Your task to perform on an android device: Search for dell xps on bestbuy, select the first entry, add it to the cart, then select checkout. Image 0: 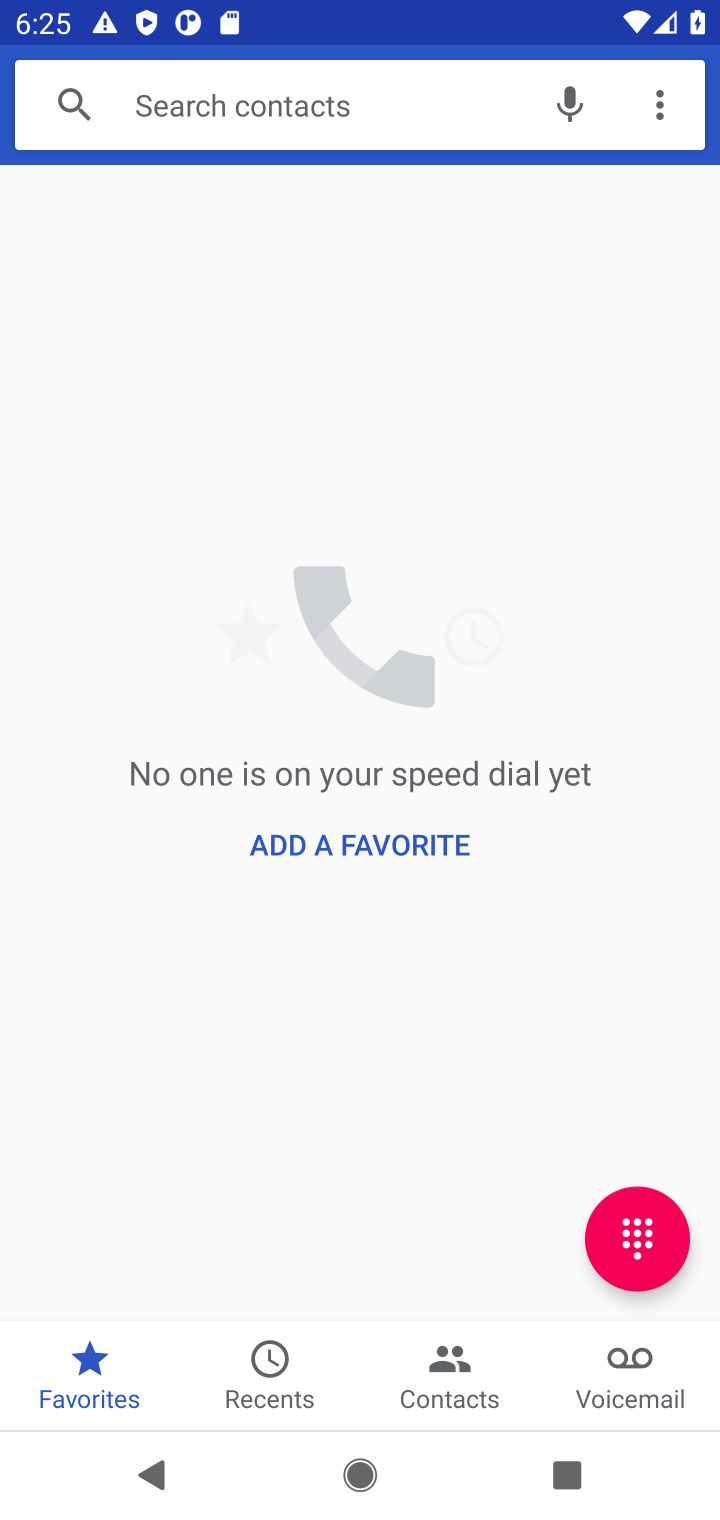
Step 0: press home button
Your task to perform on an android device: Search for dell xps on bestbuy, select the first entry, add it to the cart, then select checkout. Image 1: 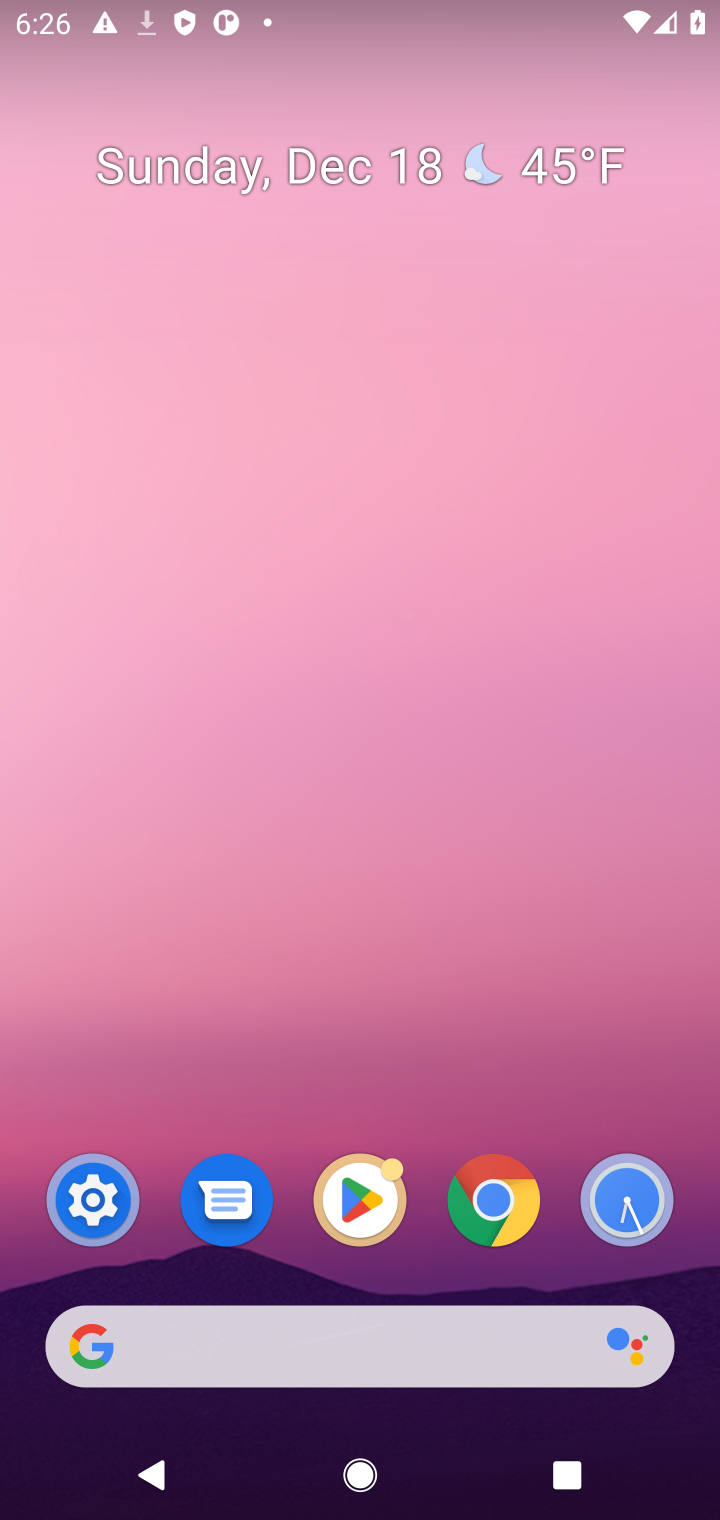
Step 1: click (505, 1211)
Your task to perform on an android device: Search for dell xps on bestbuy, select the first entry, add it to the cart, then select checkout. Image 2: 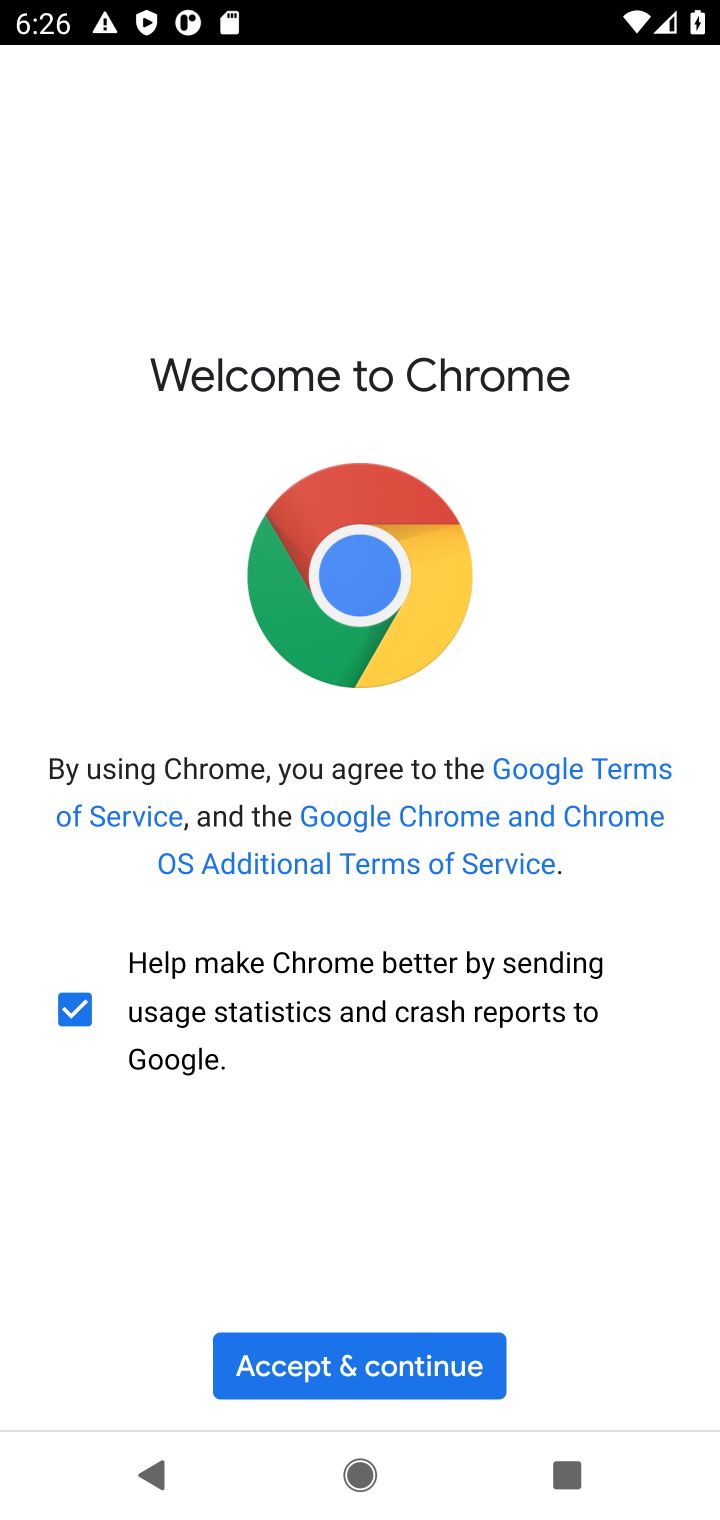
Step 2: click (392, 1374)
Your task to perform on an android device: Search for dell xps on bestbuy, select the first entry, add it to the cart, then select checkout. Image 3: 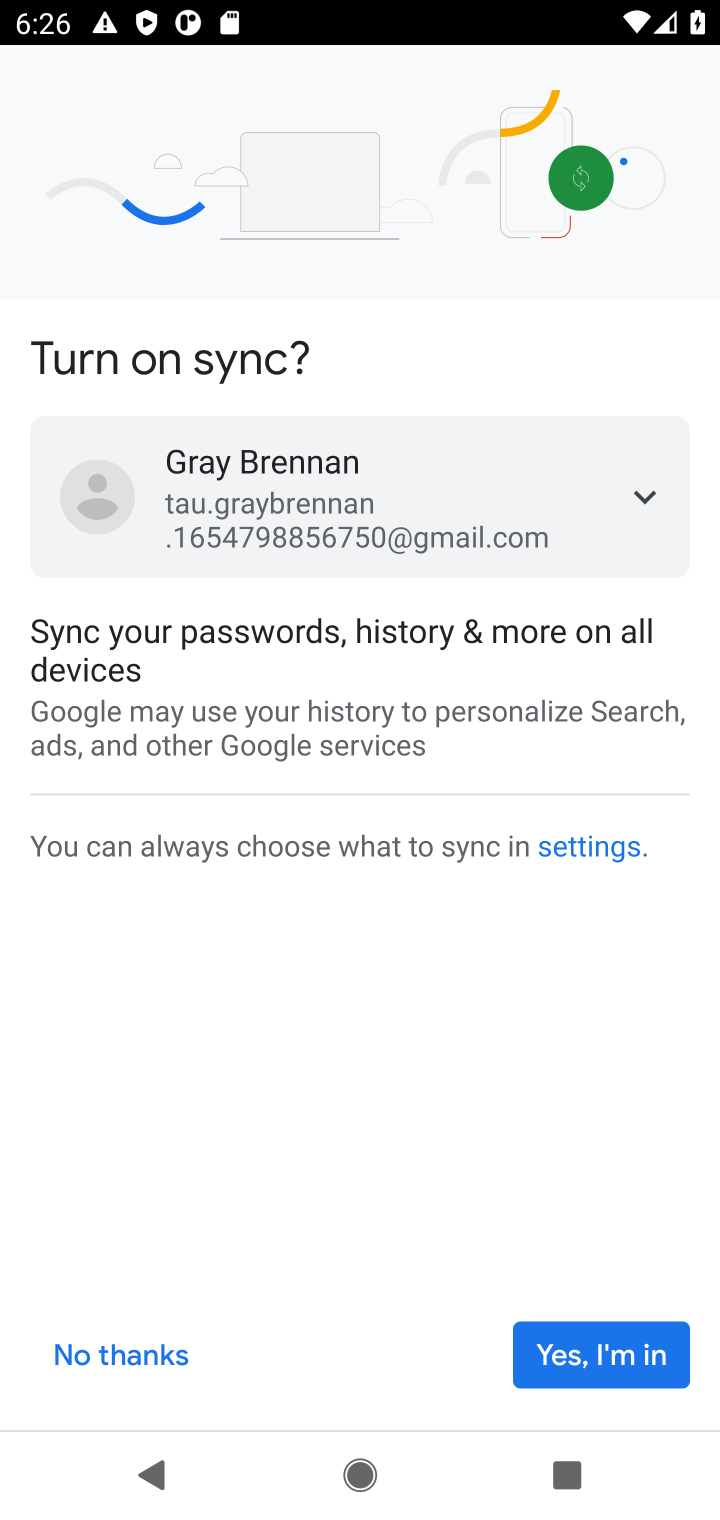
Step 3: click (144, 1355)
Your task to perform on an android device: Search for dell xps on bestbuy, select the first entry, add it to the cart, then select checkout. Image 4: 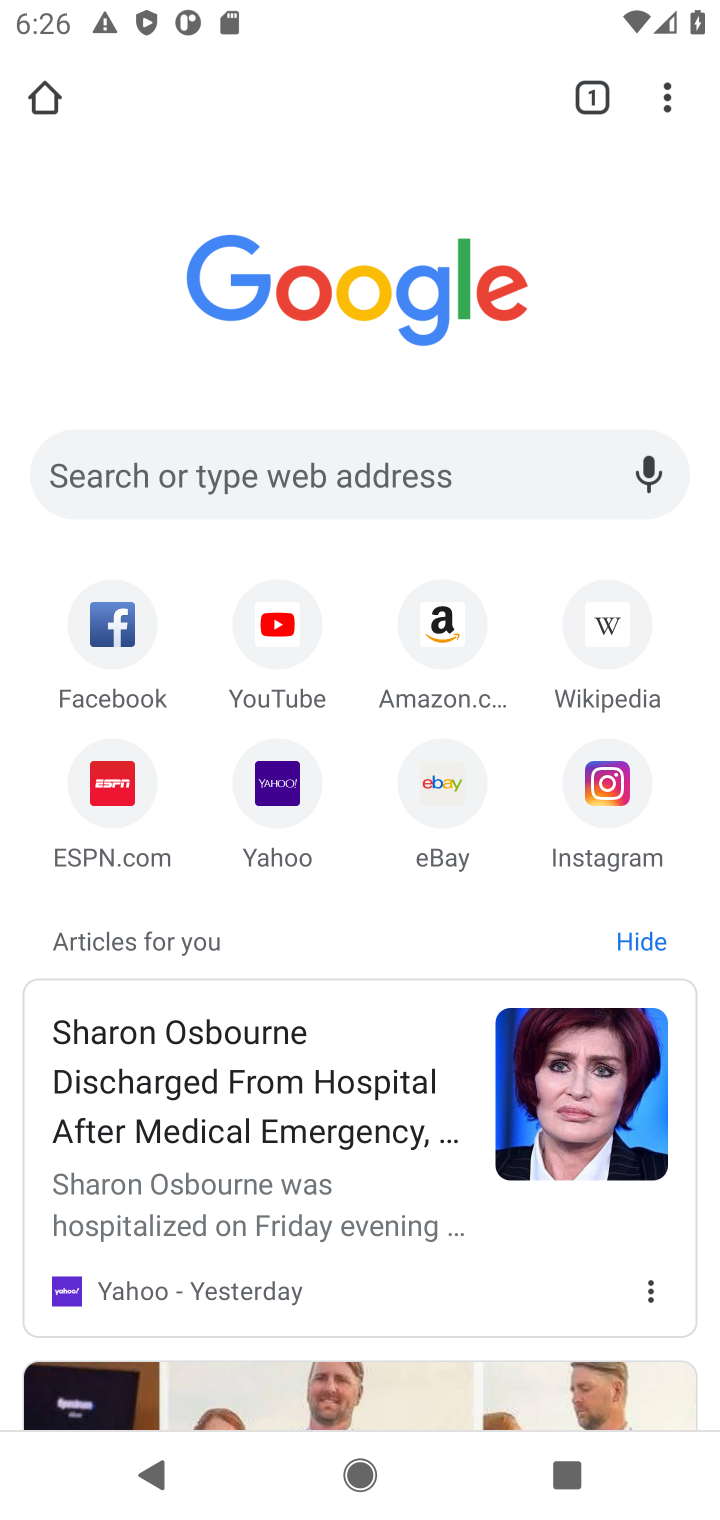
Step 4: click (225, 469)
Your task to perform on an android device: Search for dell xps on bestbuy, select the first entry, add it to the cart, then select checkout. Image 5: 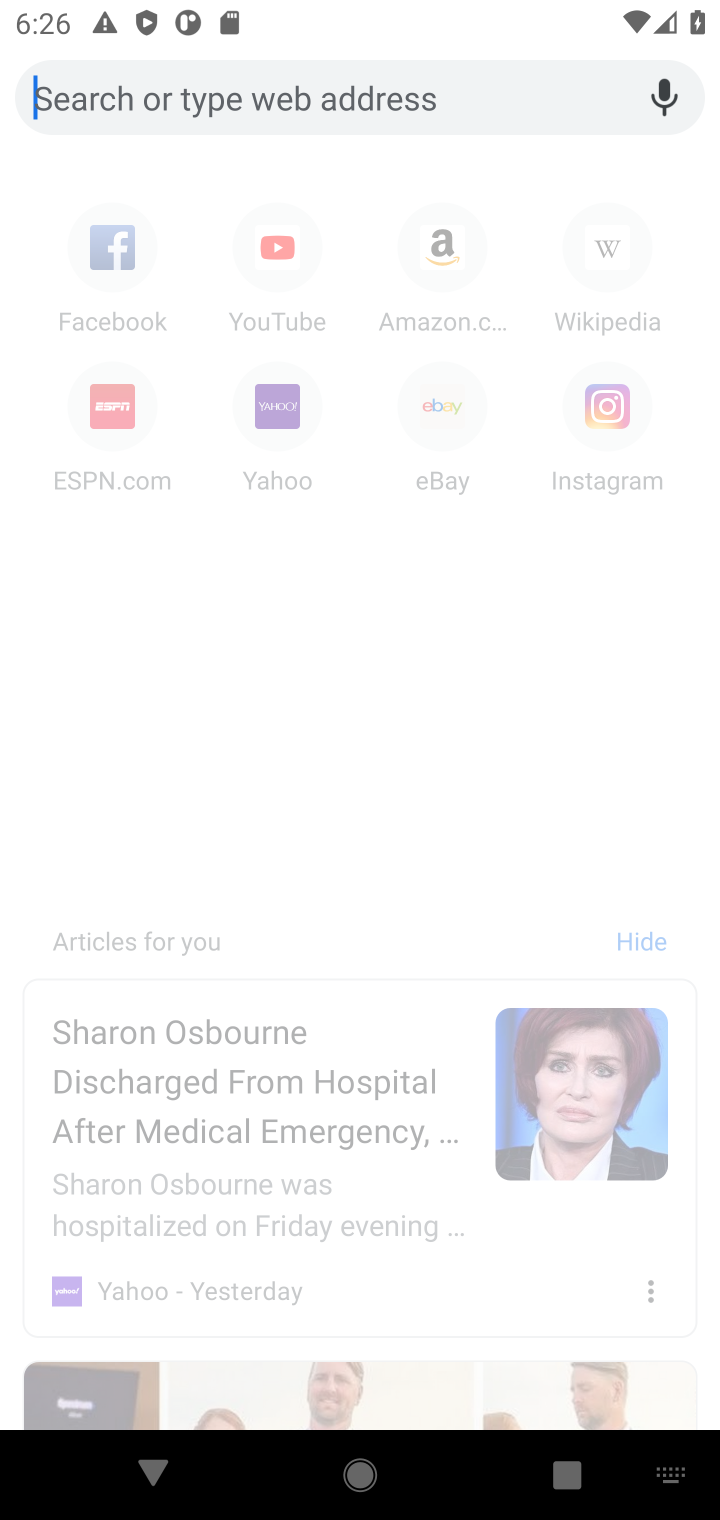
Step 5: type "bestbuy.com"
Your task to perform on an android device: Search for dell xps on bestbuy, select the first entry, add it to the cart, then select checkout. Image 6: 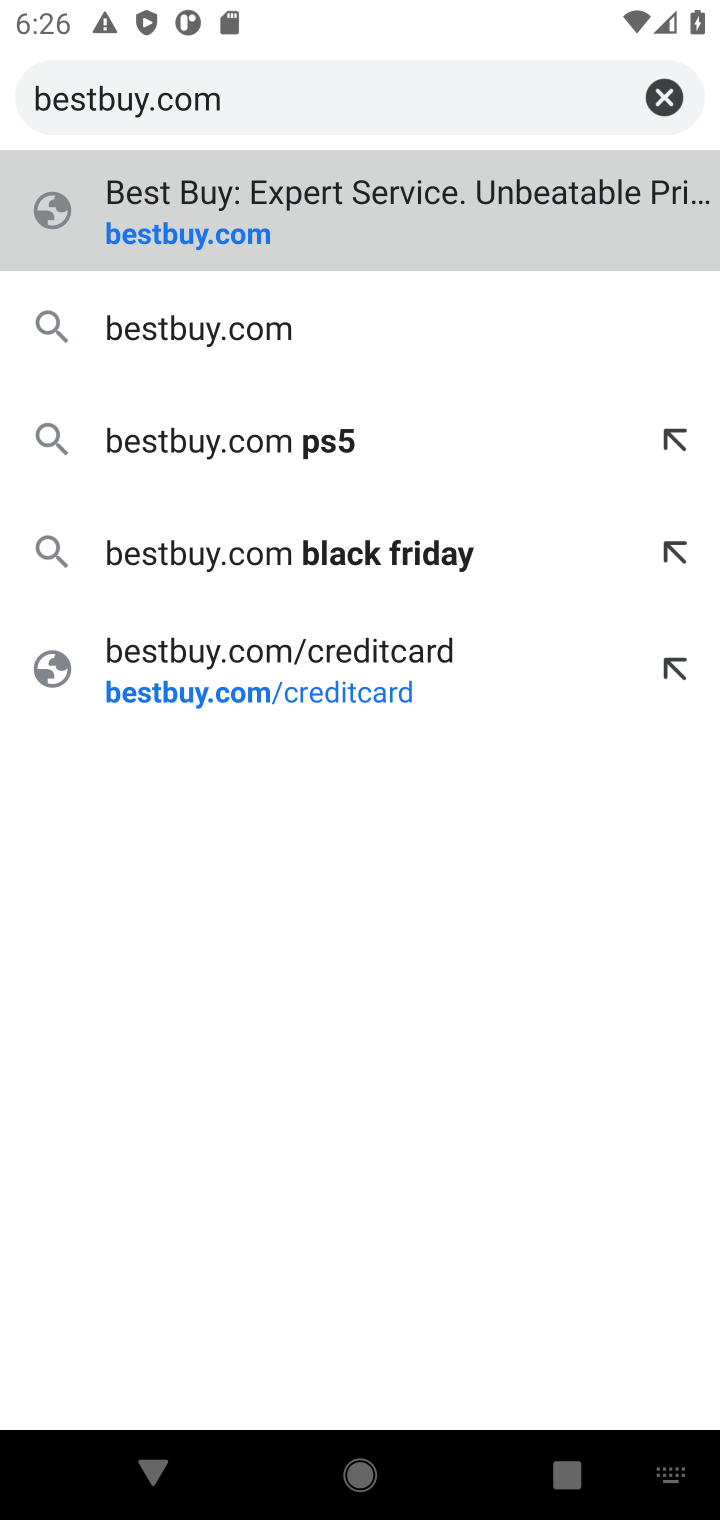
Step 6: click (156, 239)
Your task to perform on an android device: Search for dell xps on bestbuy, select the first entry, add it to the cart, then select checkout. Image 7: 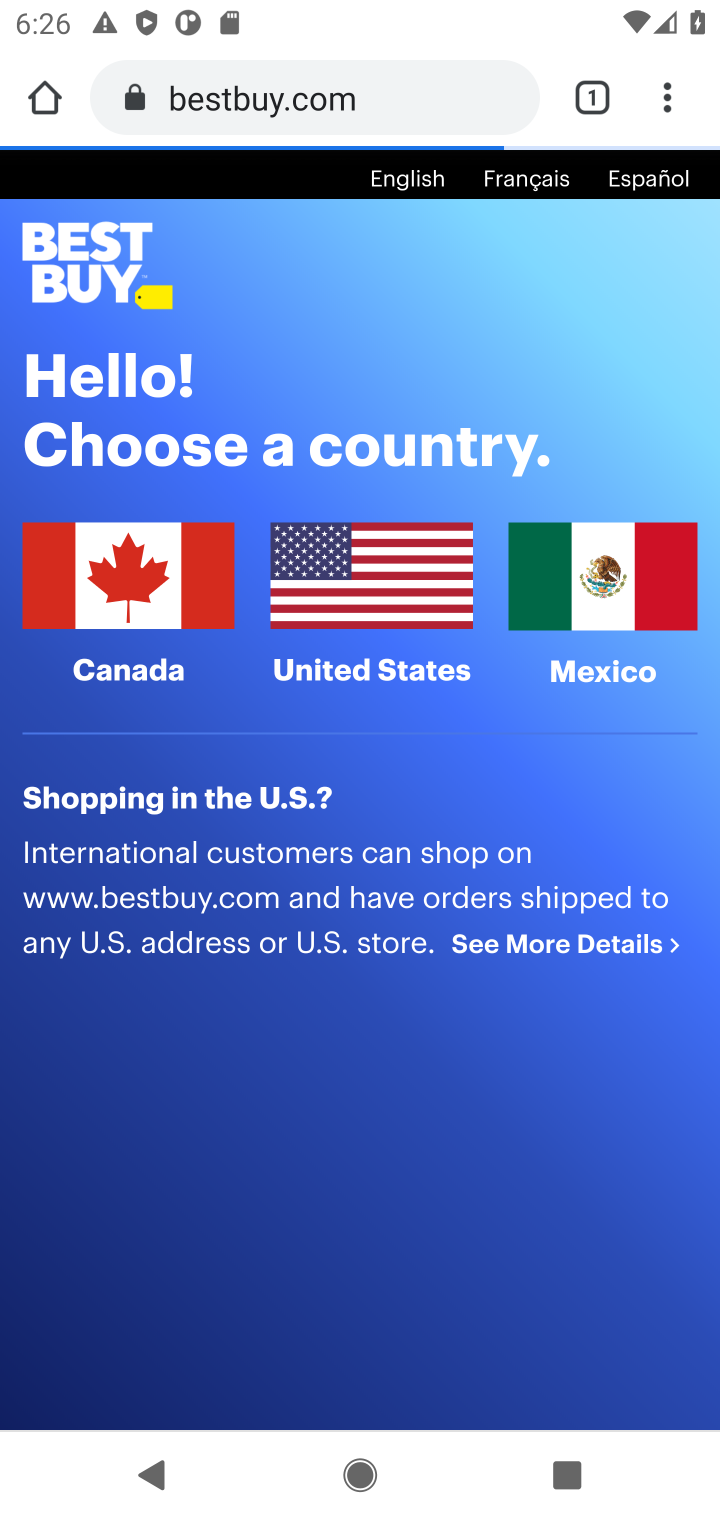
Step 7: click (392, 570)
Your task to perform on an android device: Search for dell xps on bestbuy, select the first entry, add it to the cart, then select checkout. Image 8: 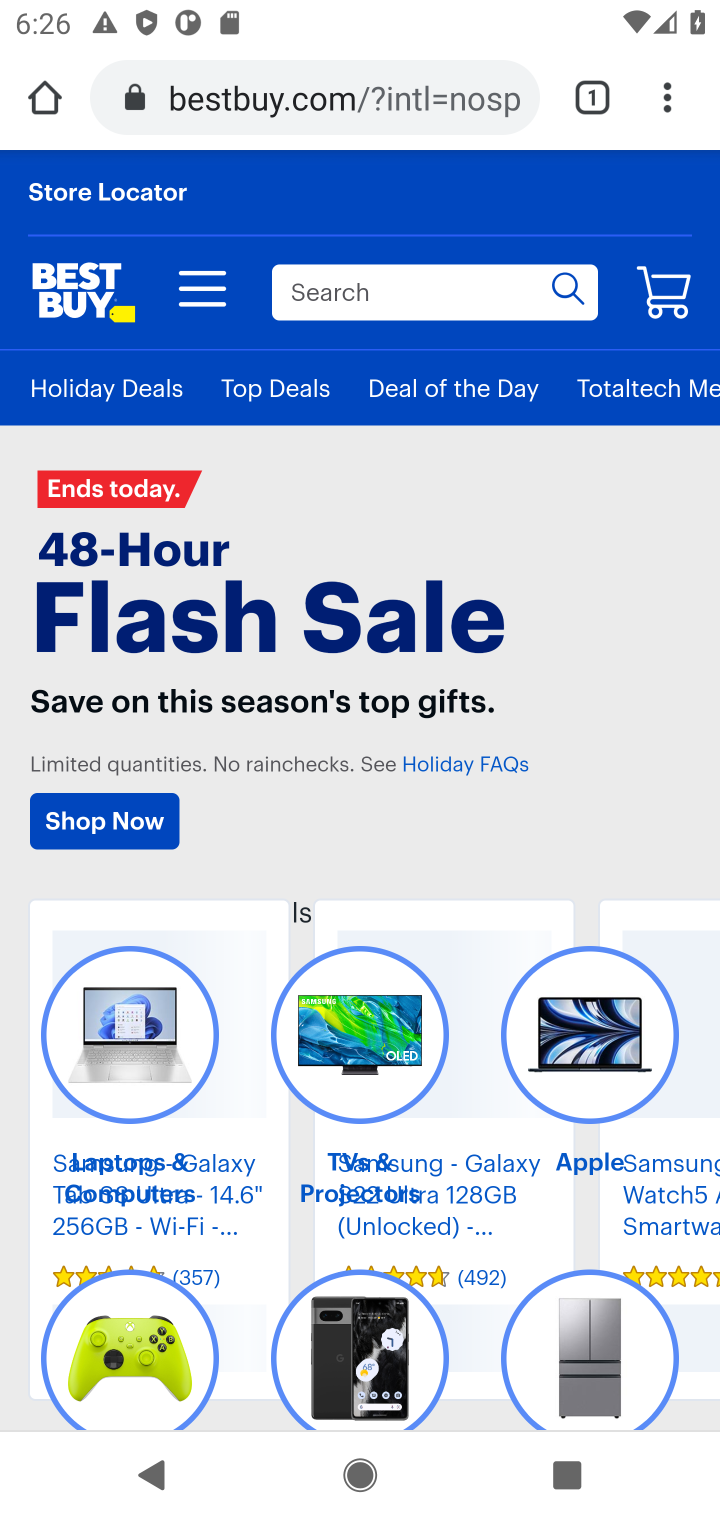
Step 8: click (345, 306)
Your task to perform on an android device: Search for dell xps on bestbuy, select the first entry, add it to the cart, then select checkout. Image 9: 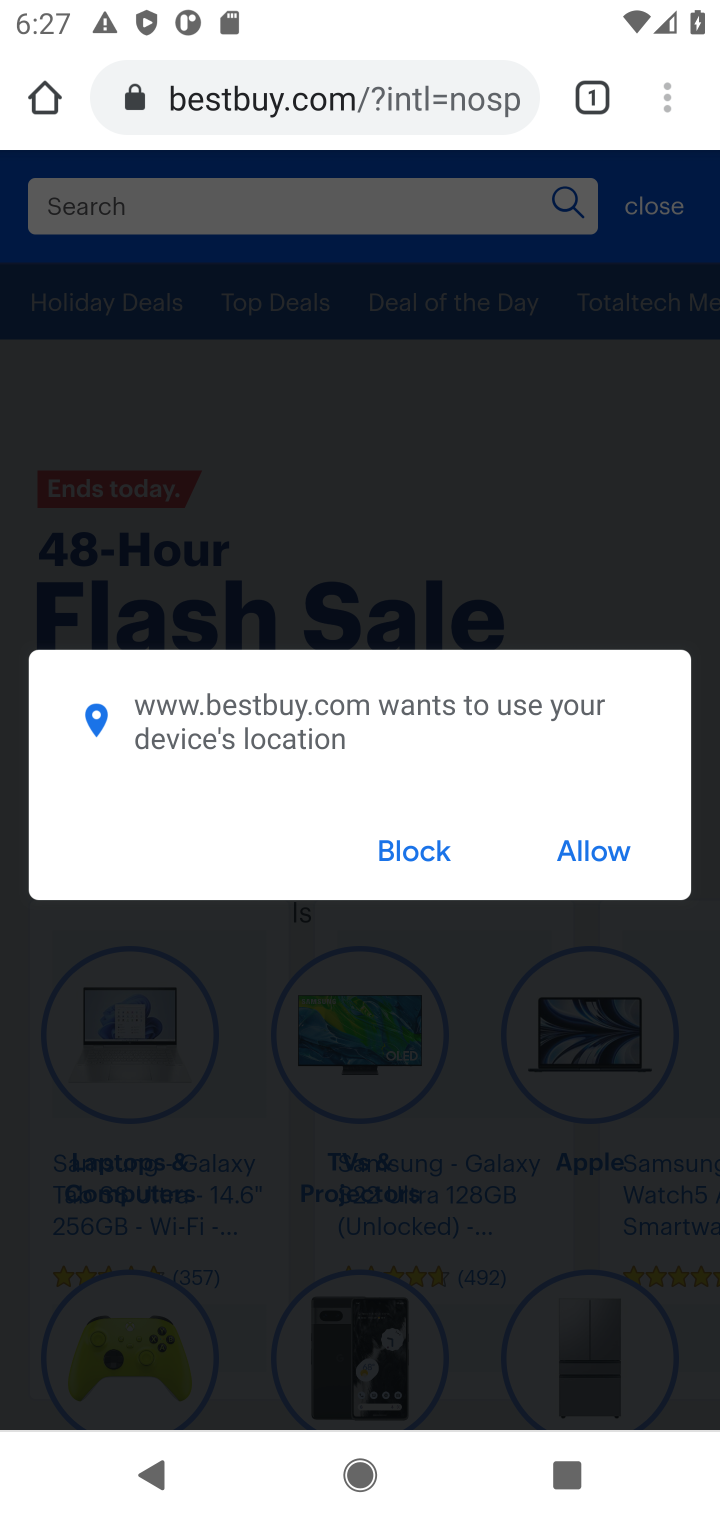
Step 9: type "dell xps"
Your task to perform on an android device: Search for dell xps on bestbuy, select the first entry, add it to the cart, then select checkout. Image 10: 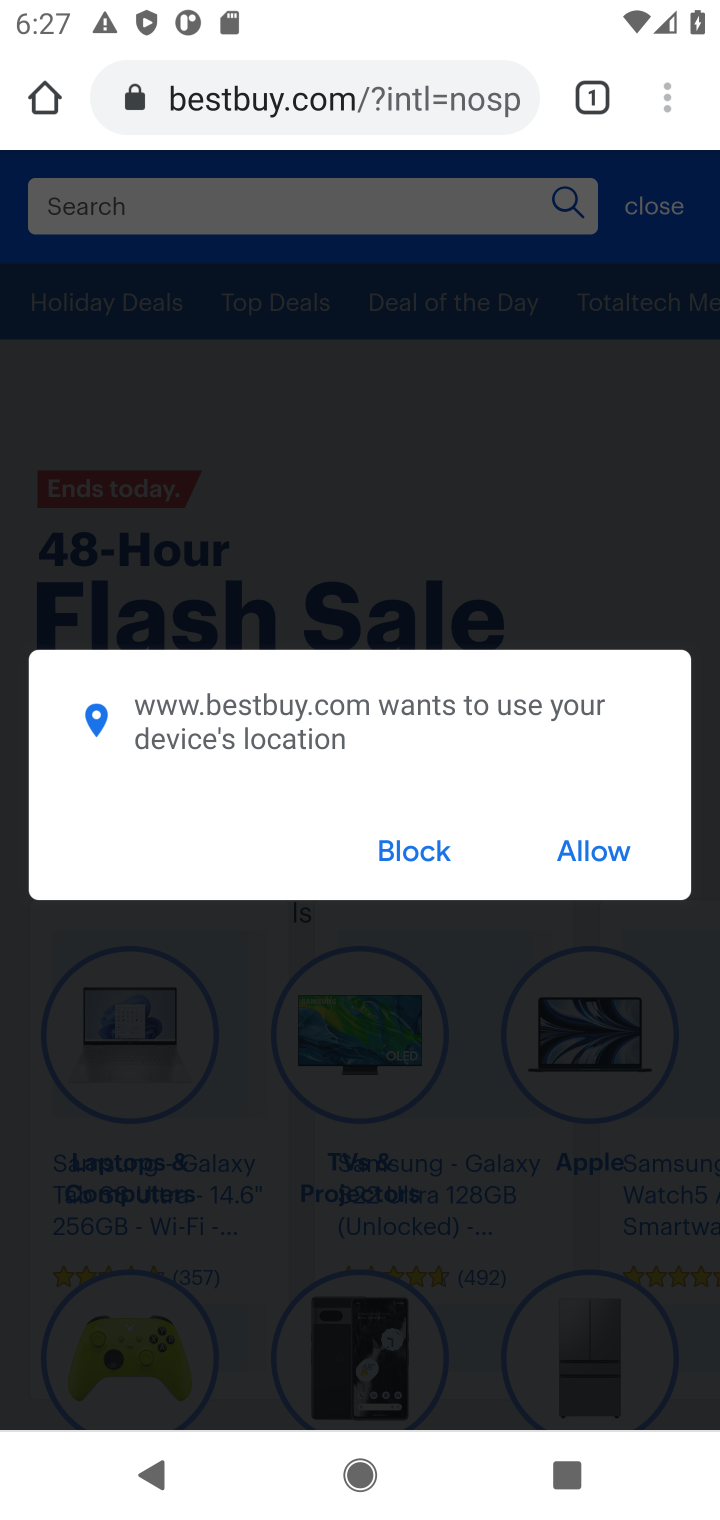
Step 10: click (437, 851)
Your task to perform on an android device: Search for dell xps on bestbuy, select the first entry, add it to the cart, then select checkout. Image 11: 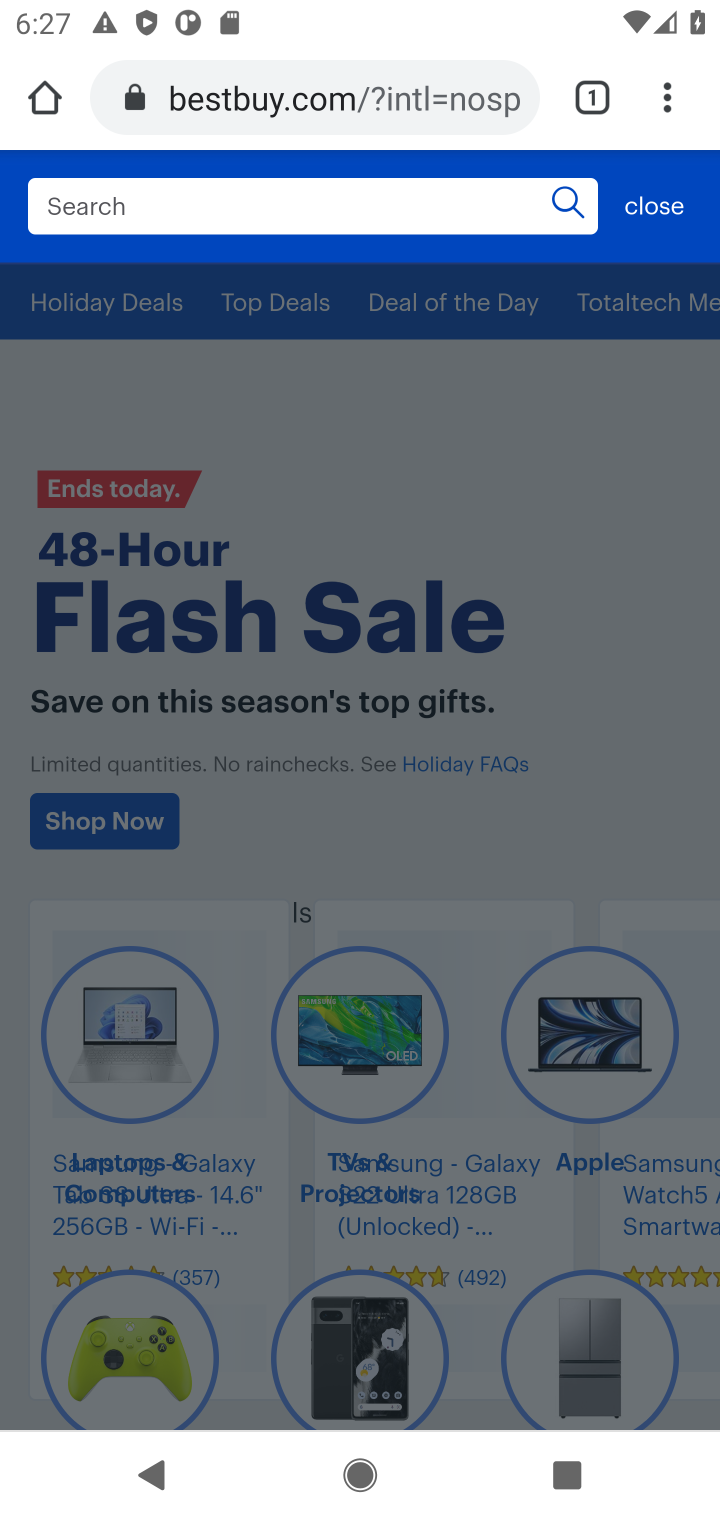
Step 11: click (215, 227)
Your task to perform on an android device: Search for dell xps on bestbuy, select the first entry, add it to the cart, then select checkout. Image 12: 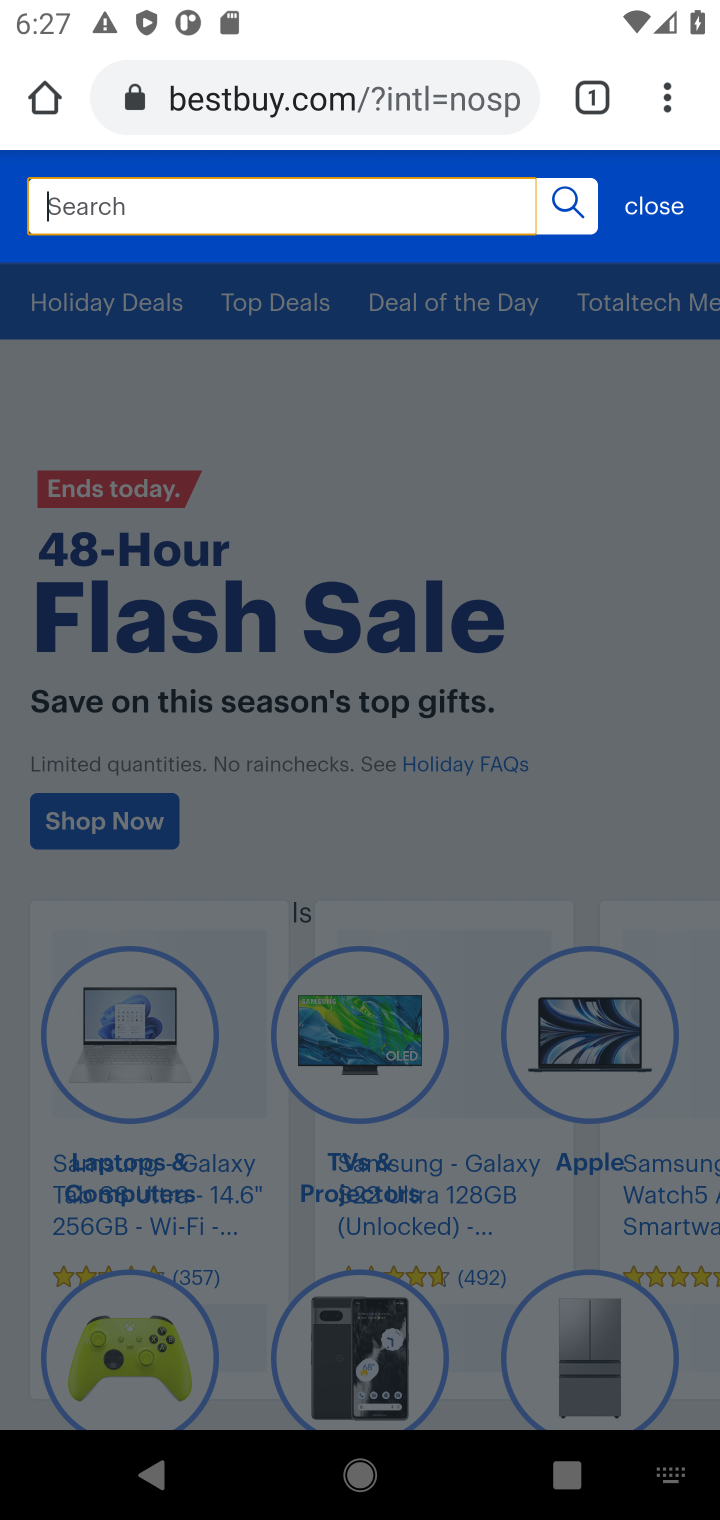
Step 12: type "dell xps"
Your task to perform on an android device: Search for dell xps on bestbuy, select the first entry, add it to the cart, then select checkout. Image 13: 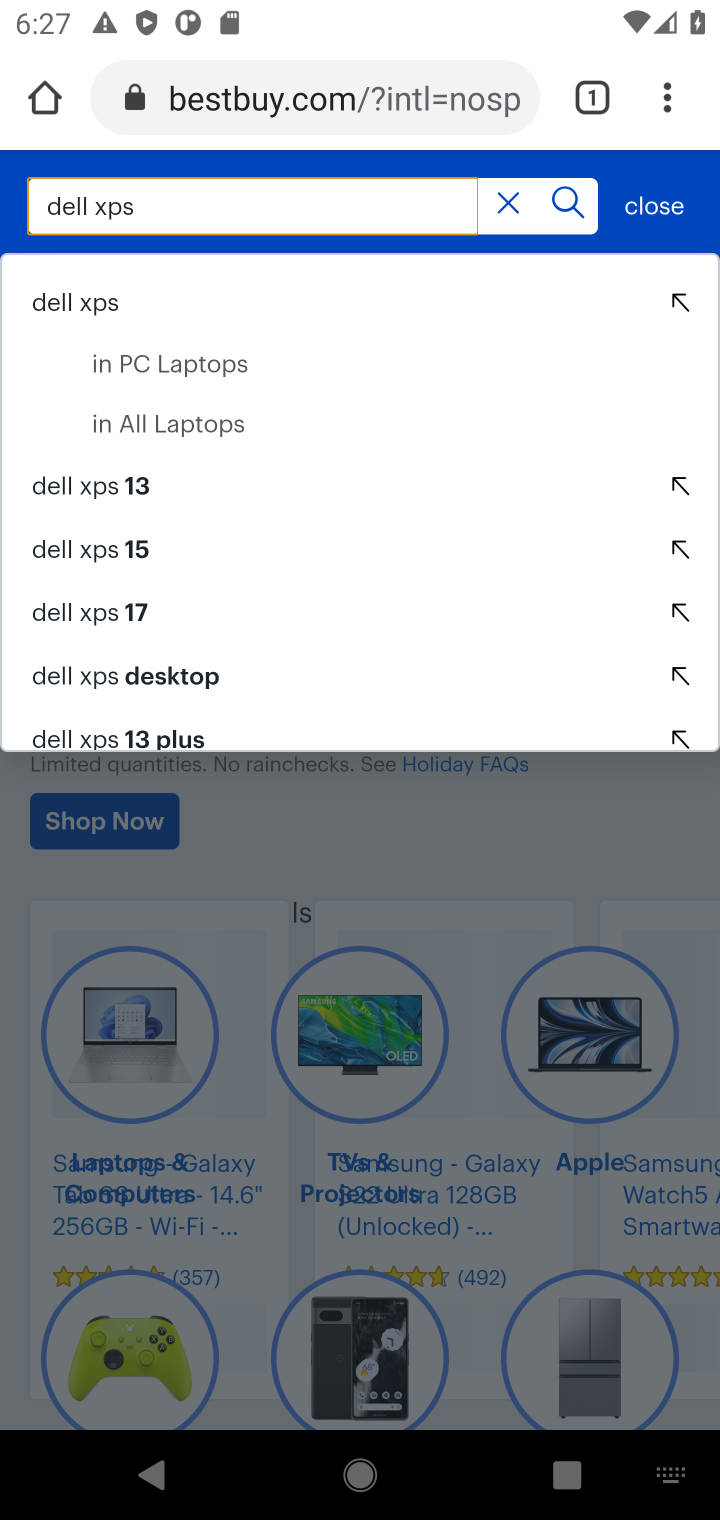
Step 13: click (89, 302)
Your task to perform on an android device: Search for dell xps on bestbuy, select the first entry, add it to the cart, then select checkout. Image 14: 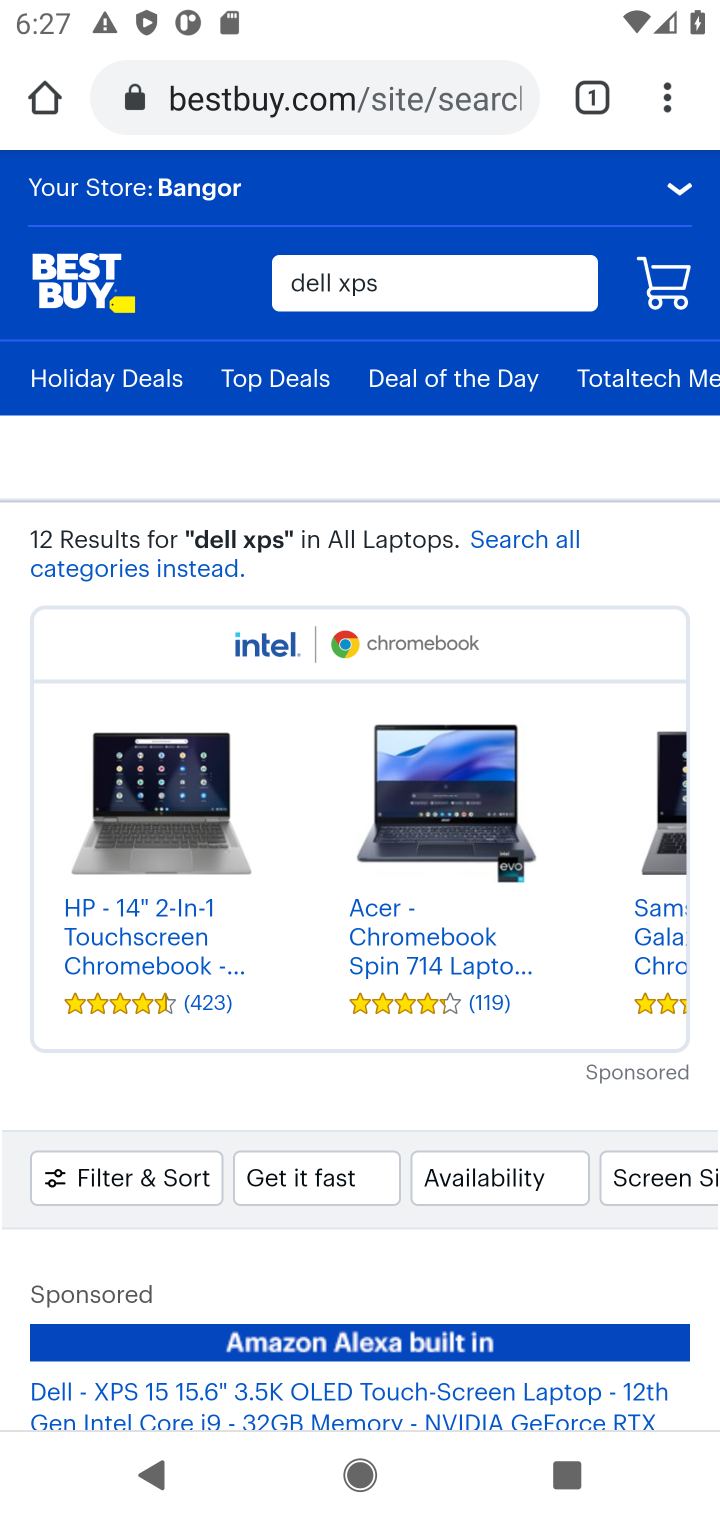
Step 14: drag from (327, 1234) to (361, 420)
Your task to perform on an android device: Search for dell xps on bestbuy, select the first entry, add it to the cart, then select checkout. Image 15: 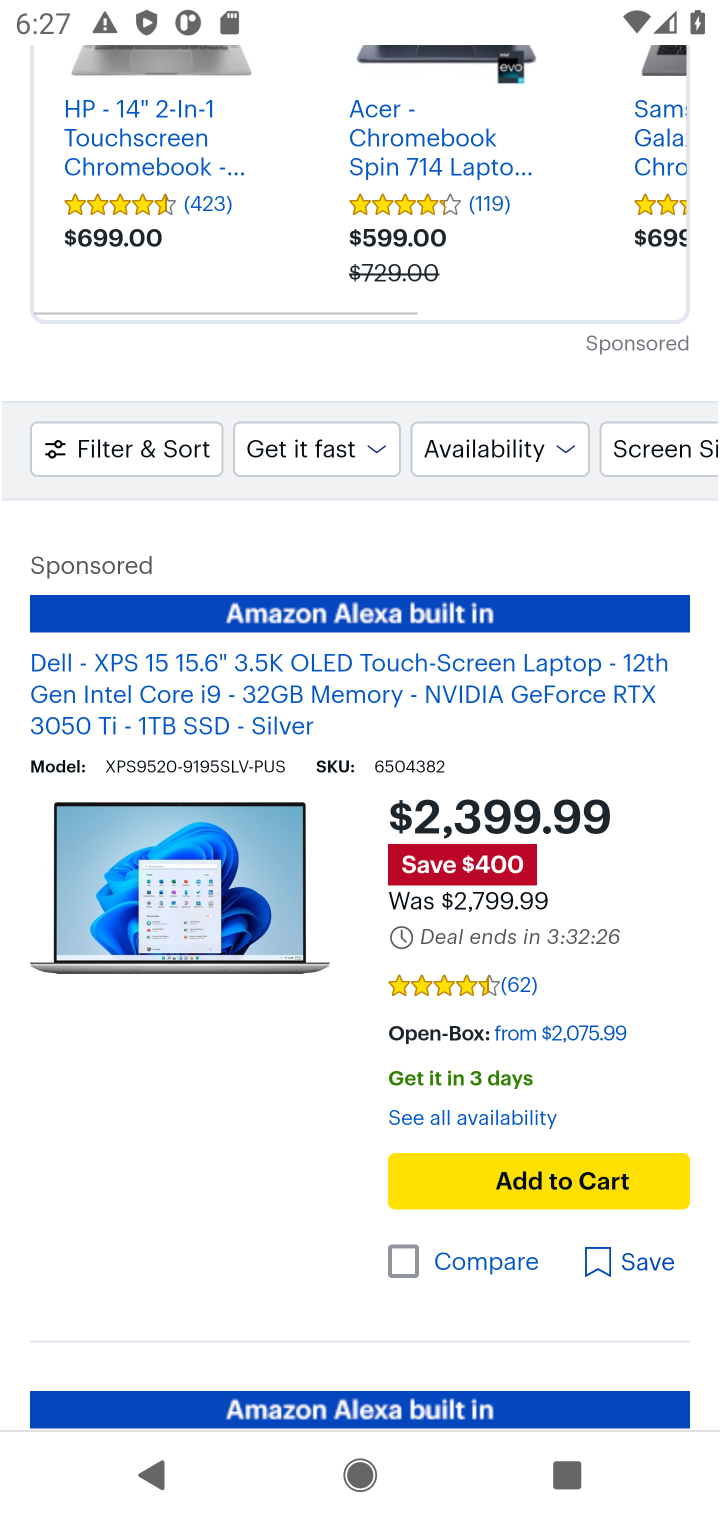
Step 15: click (273, 633)
Your task to perform on an android device: Search for dell xps on bestbuy, select the first entry, add it to the cart, then select checkout. Image 16: 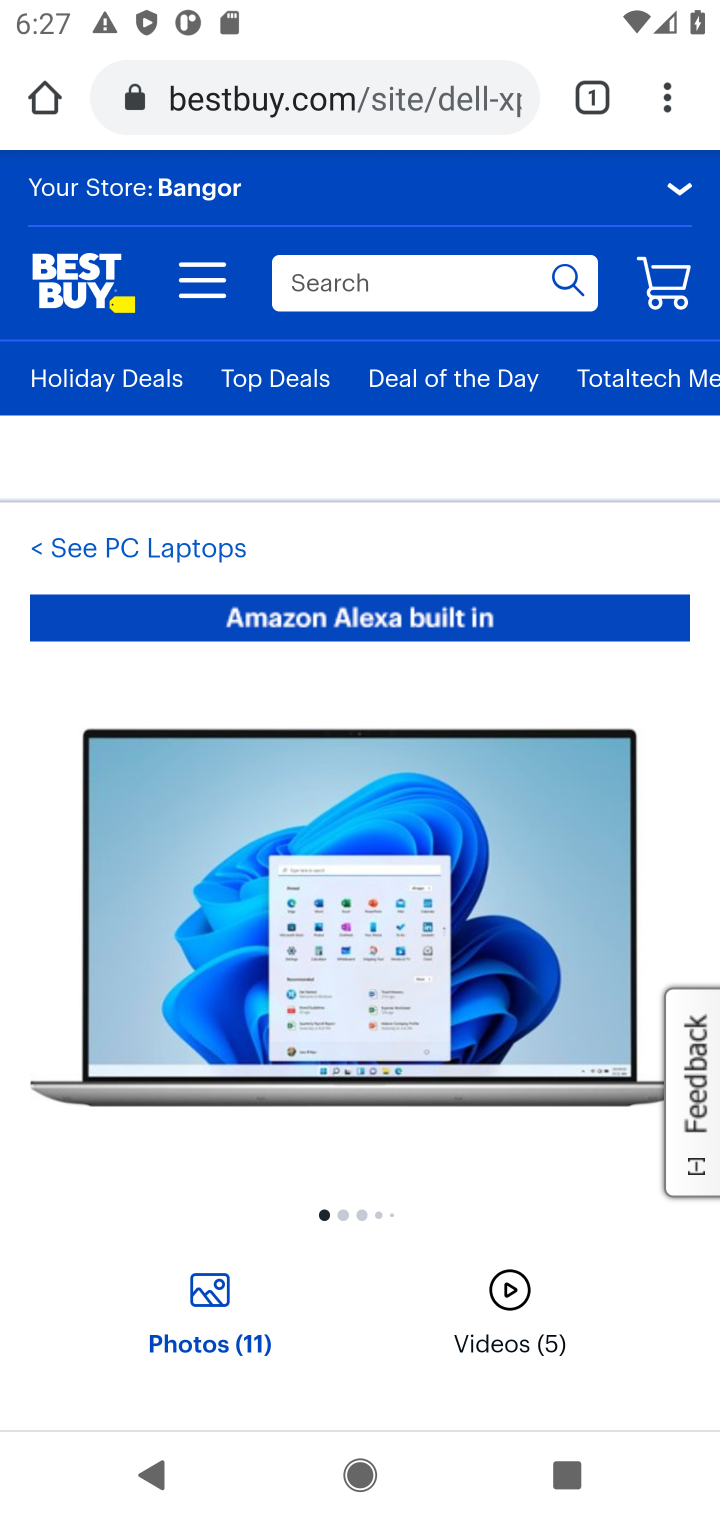
Step 16: drag from (301, 1045) to (277, 375)
Your task to perform on an android device: Search for dell xps on bestbuy, select the first entry, add it to the cart, then select checkout. Image 17: 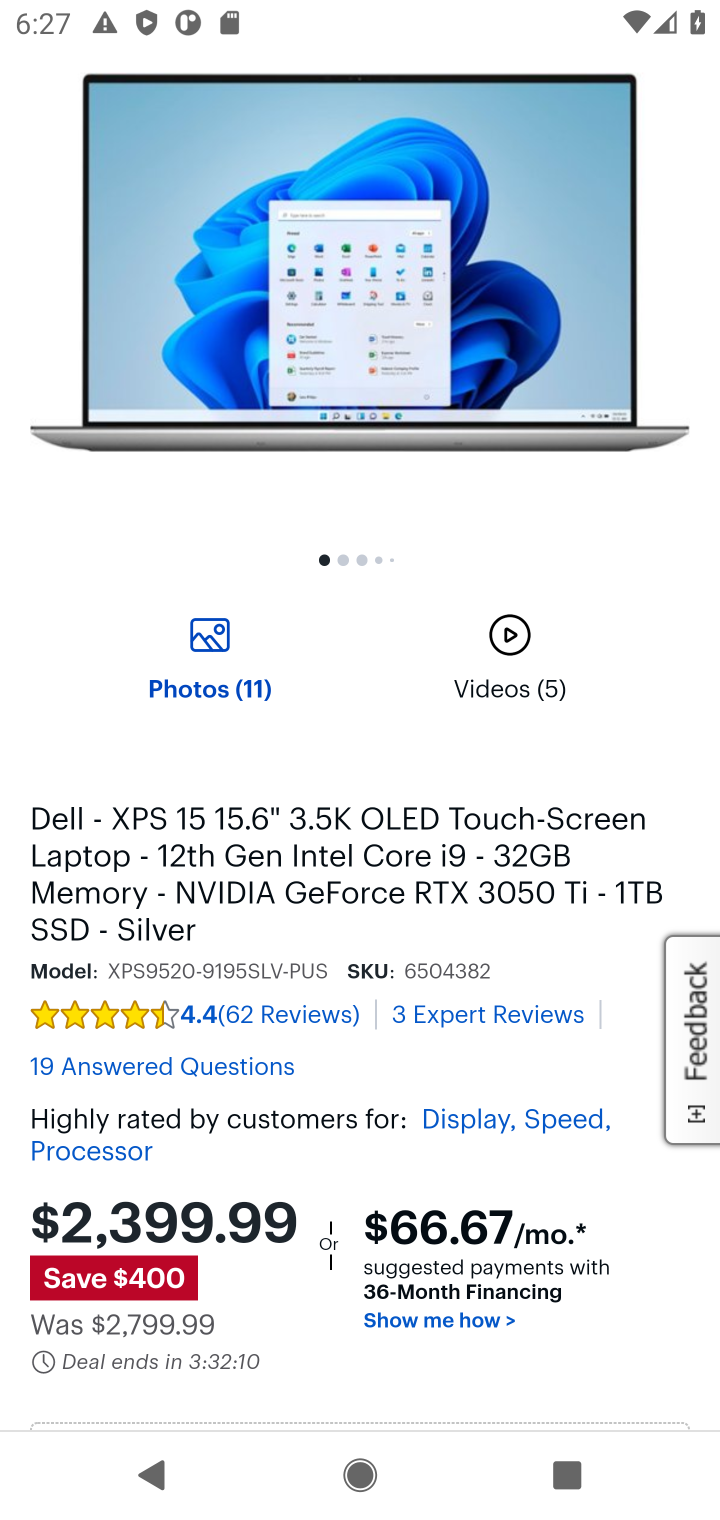
Step 17: drag from (354, 785) to (372, 296)
Your task to perform on an android device: Search for dell xps on bestbuy, select the first entry, add it to the cart, then select checkout. Image 18: 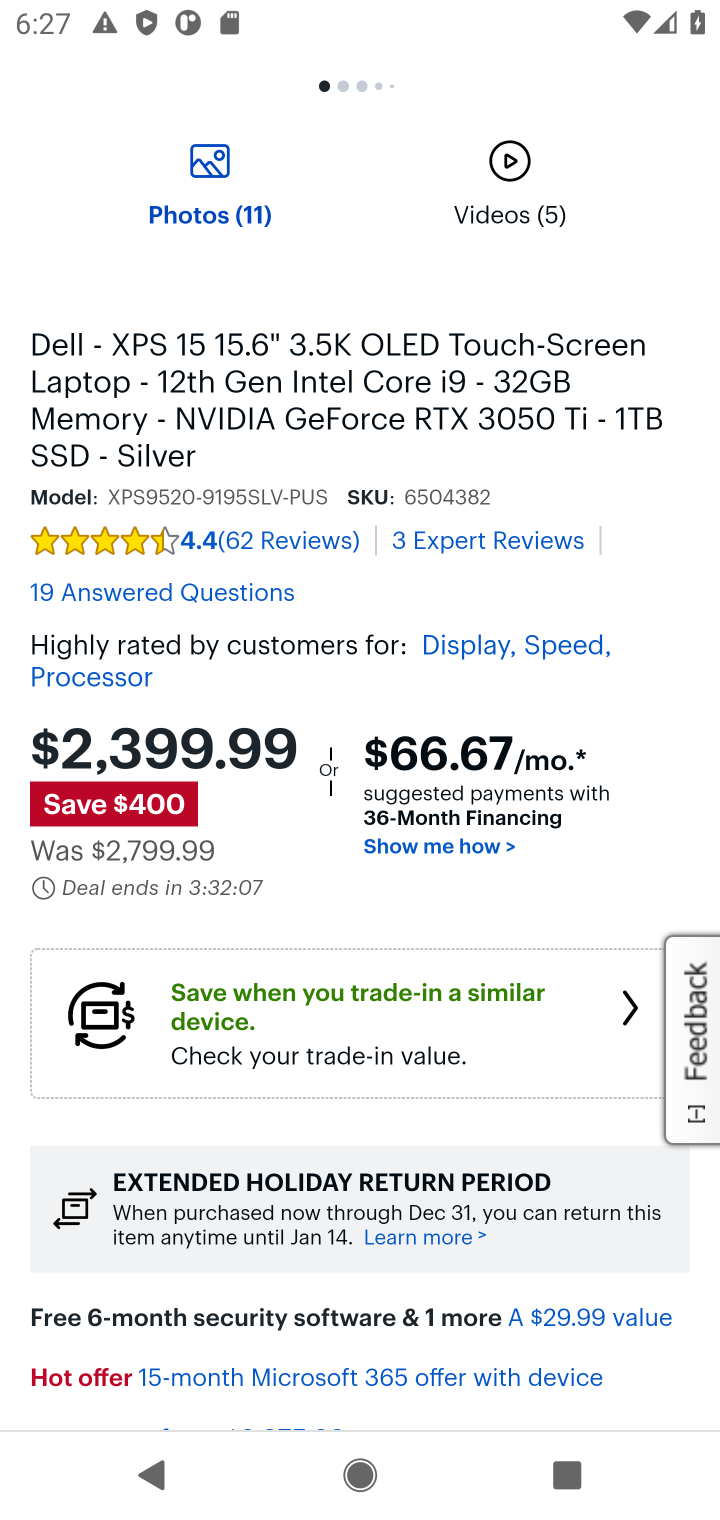
Step 18: drag from (291, 1149) to (315, 386)
Your task to perform on an android device: Search for dell xps on bestbuy, select the first entry, add it to the cart, then select checkout. Image 19: 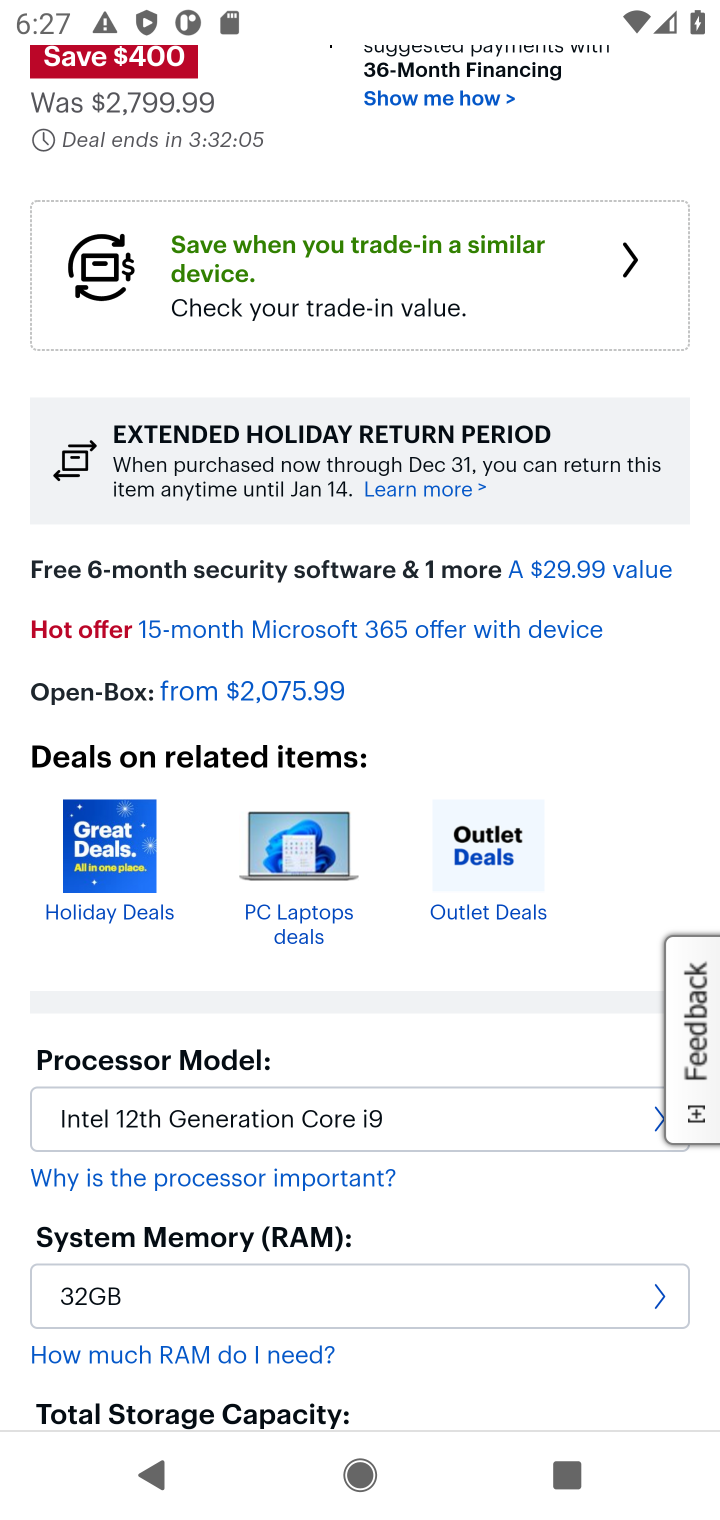
Step 19: drag from (294, 928) to (335, 368)
Your task to perform on an android device: Search for dell xps on bestbuy, select the first entry, add it to the cart, then select checkout. Image 20: 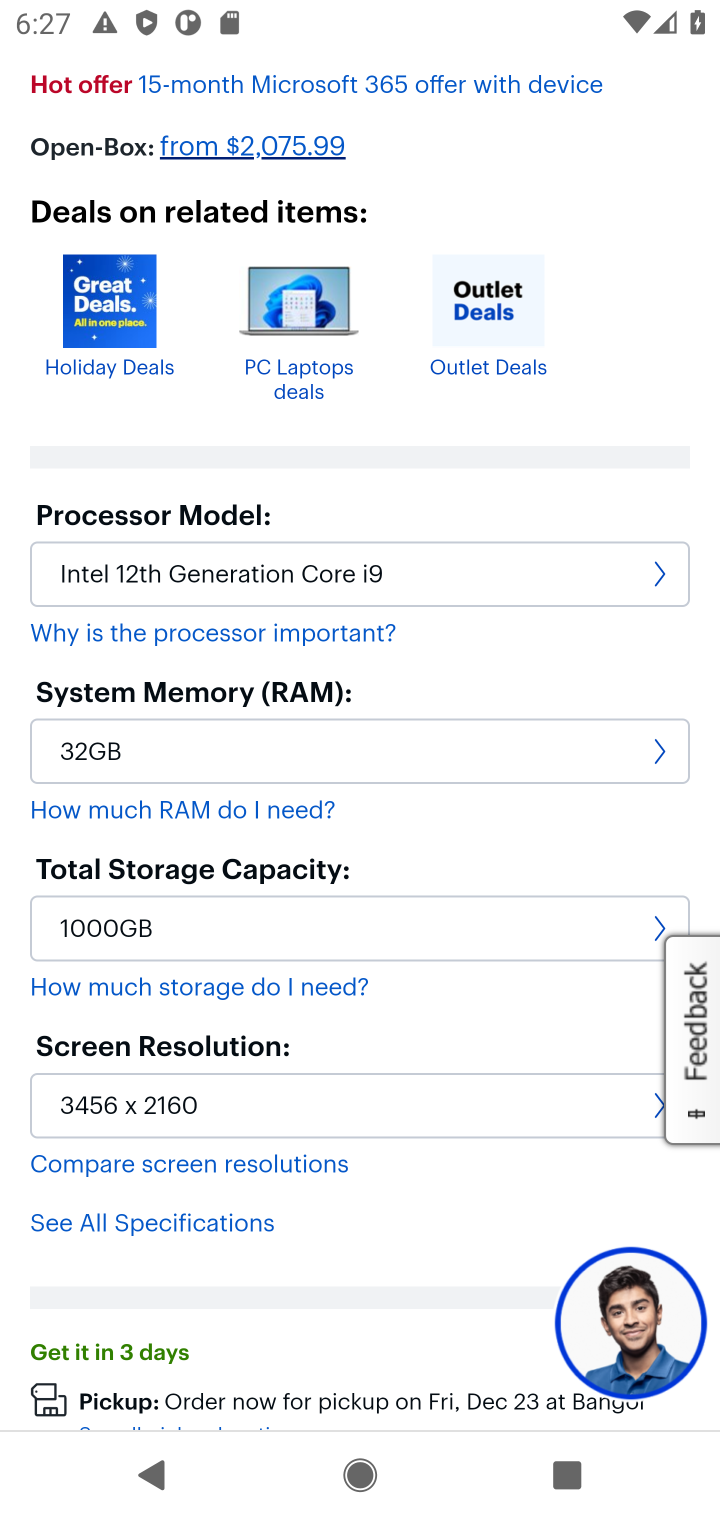
Step 20: drag from (299, 1154) to (333, 275)
Your task to perform on an android device: Search for dell xps on bestbuy, select the first entry, add it to the cart, then select checkout. Image 21: 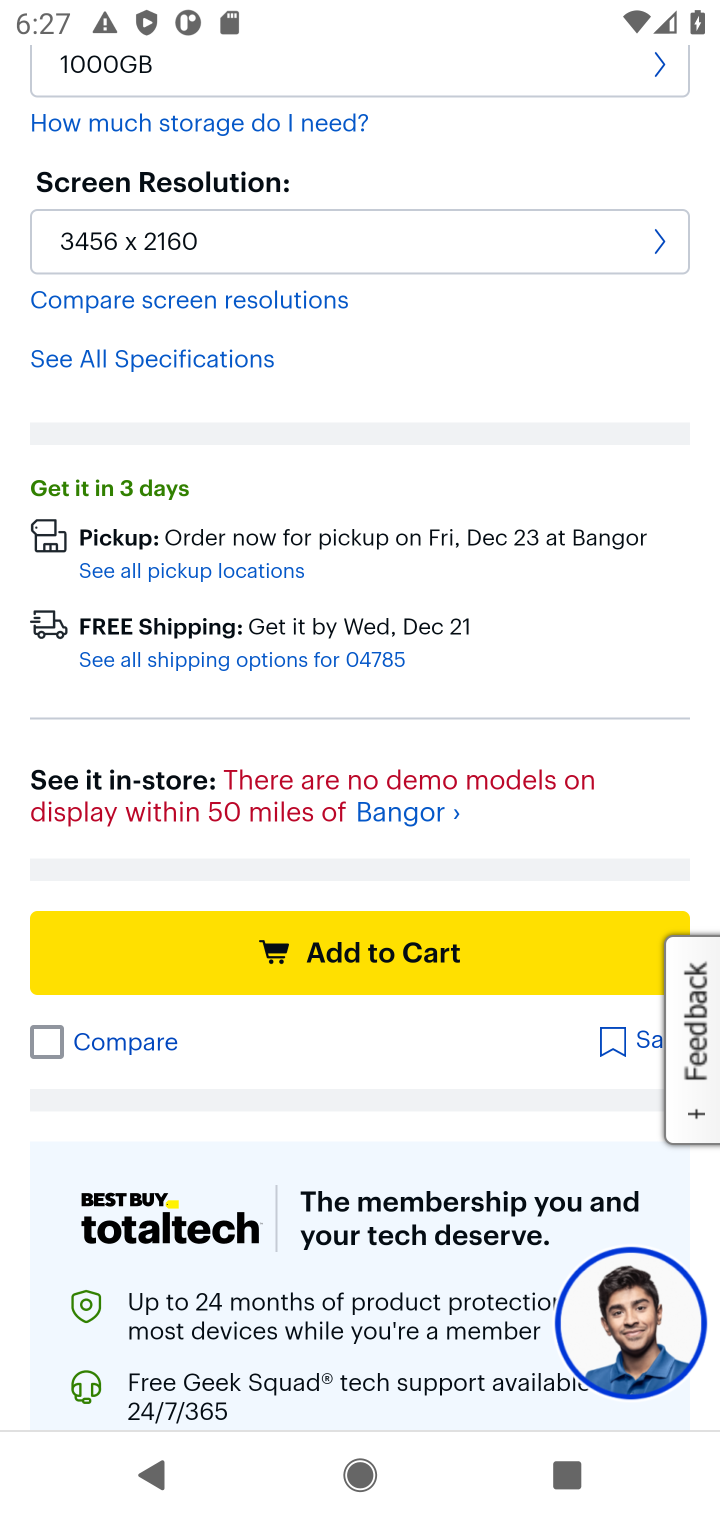
Step 21: click (303, 919)
Your task to perform on an android device: Search for dell xps on bestbuy, select the first entry, add it to the cart, then select checkout. Image 22: 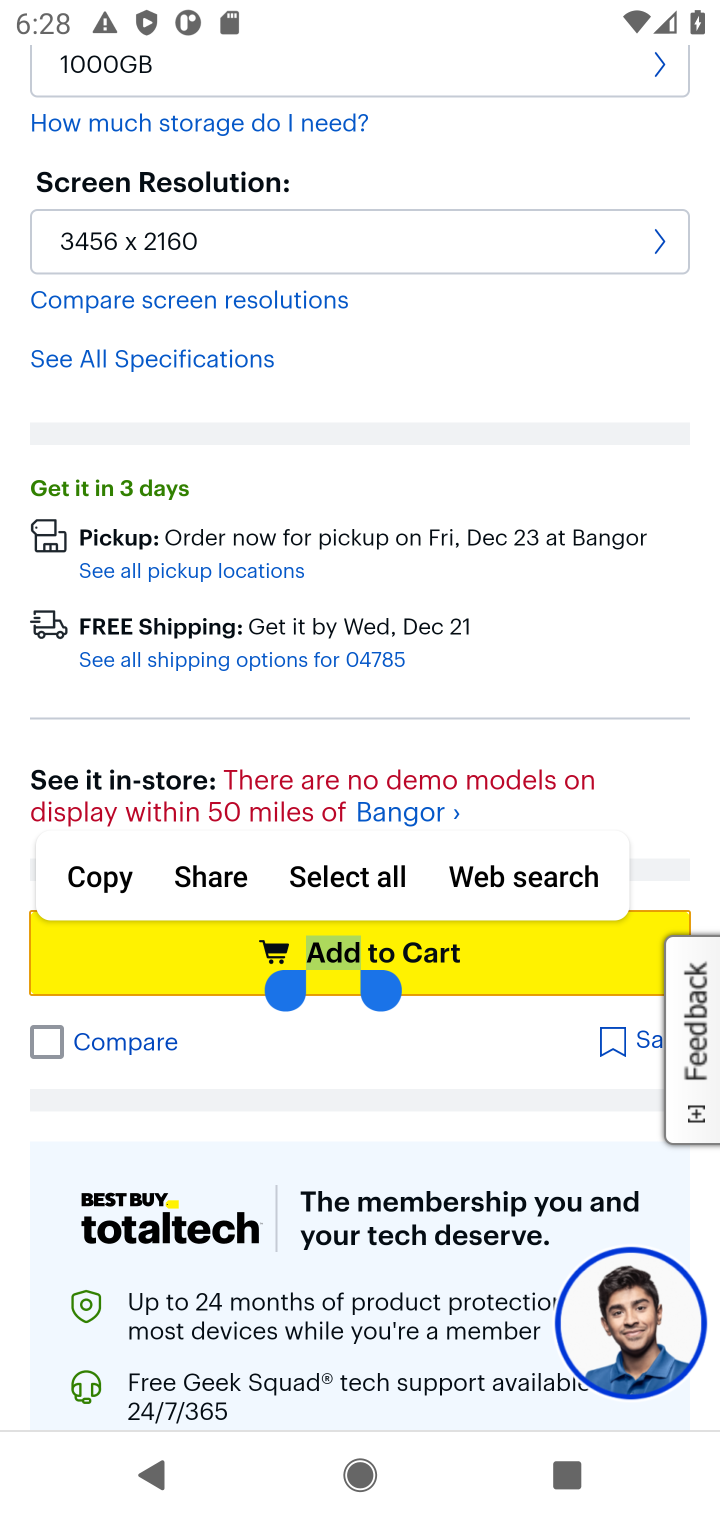
Step 22: click (411, 953)
Your task to perform on an android device: Search for dell xps on bestbuy, select the first entry, add it to the cart, then select checkout. Image 23: 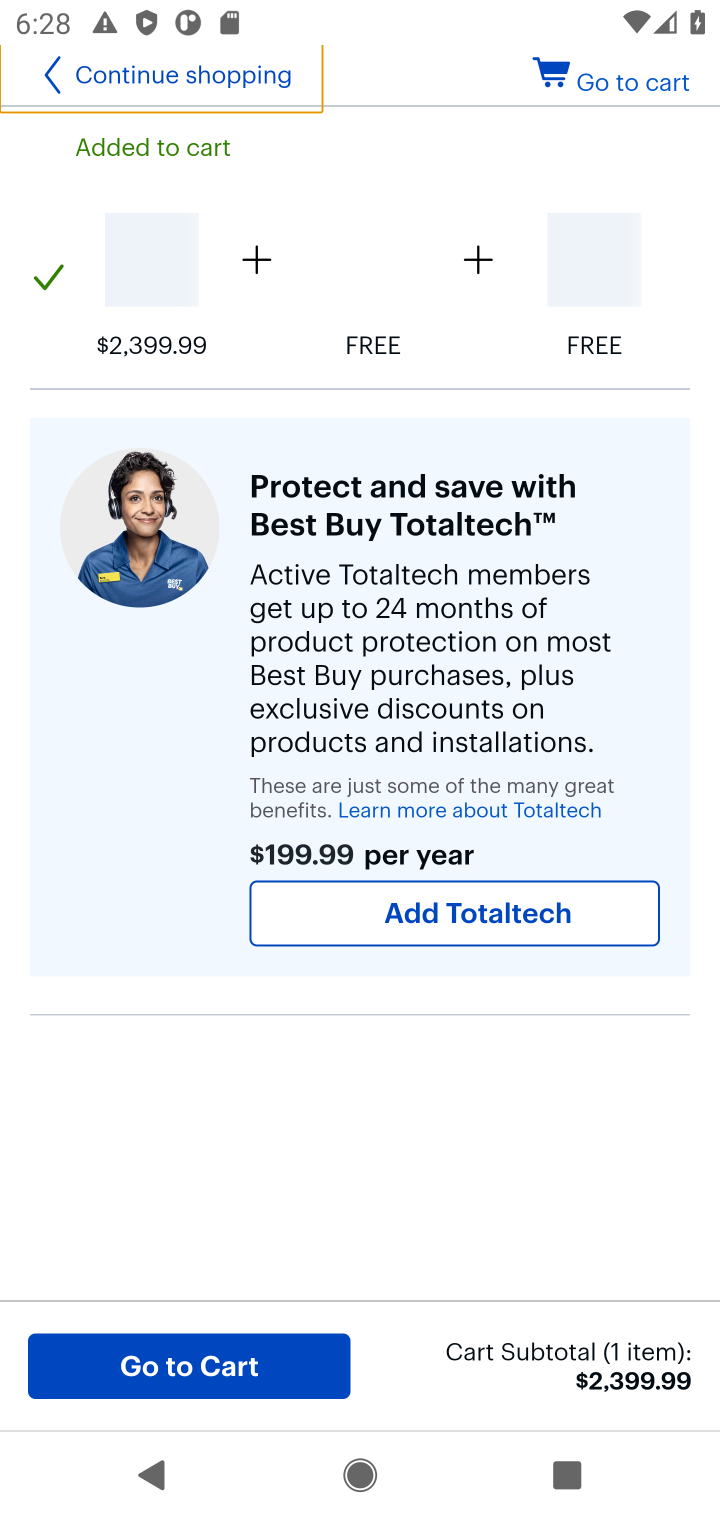
Step 23: click (623, 80)
Your task to perform on an android device: Search for dell xps on bestbuy, select the first entry, add it to the cart, then select checkout. Image 24: 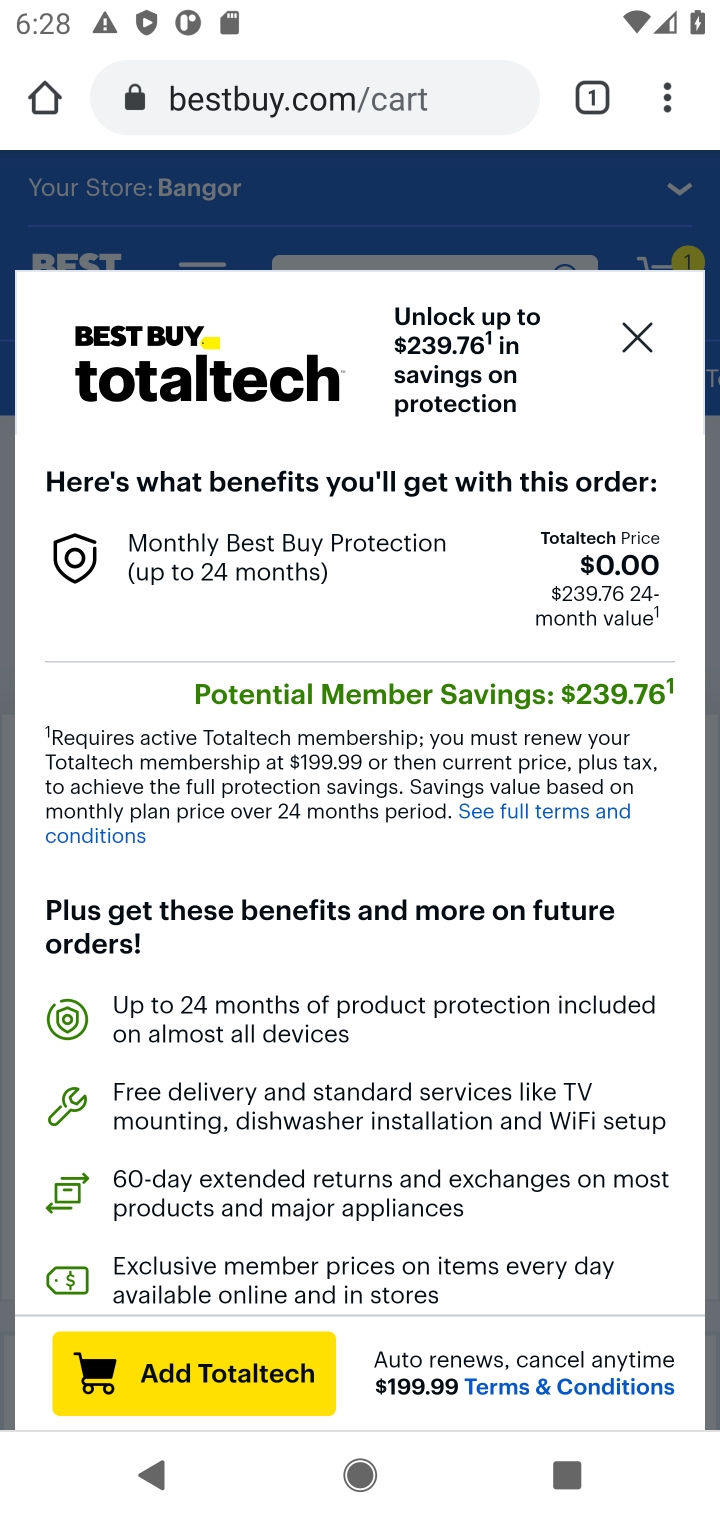
Step 24: click (630, 347)
Your task to perform on an android device: Search for dell xps on bestbuy, select the first entry, add it to the cart, then select checkout. Image 25: 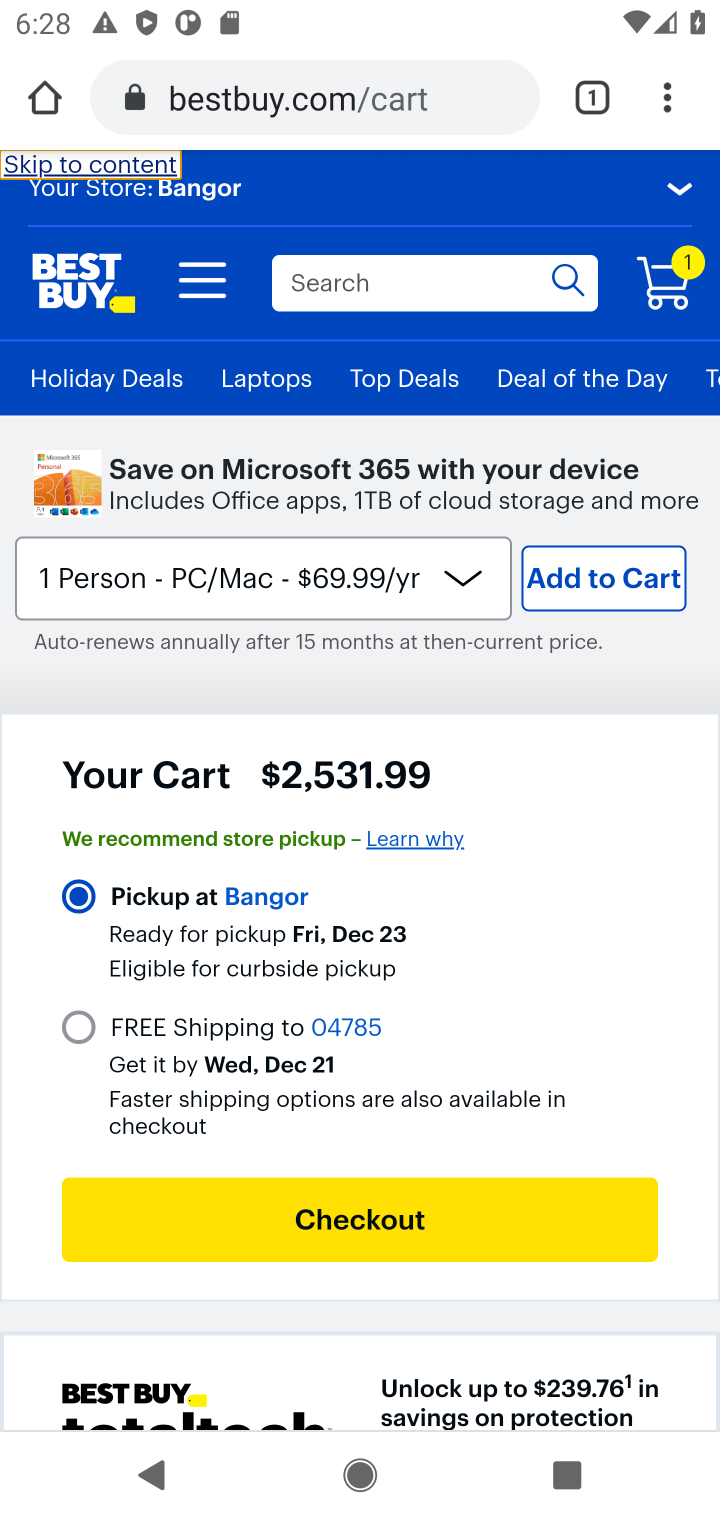
Step 25: click (309, 1218)
Your task to perform on an android device: Search for dell xps on bestbuy, select the first entry, add it to the cart, then select checkout. Image 26: 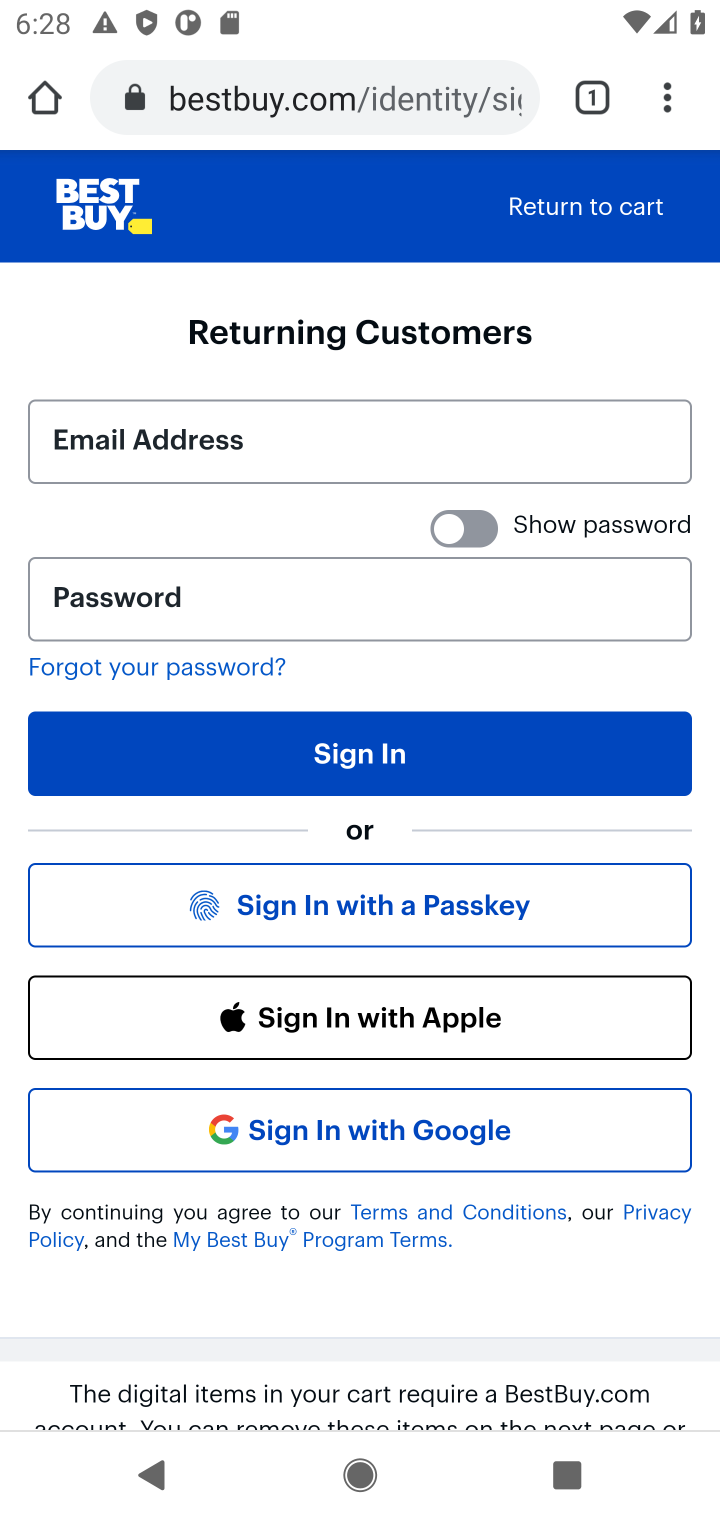
Step 26: task complete